Your task to perform on an android device: Go to Google maps Image 0: 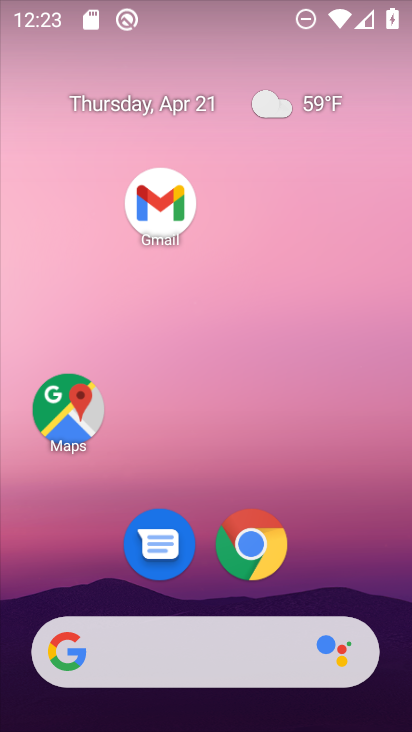
Step 0: click (265, 550)
Your task to perform on an android device: Go to Google maps Image 1: 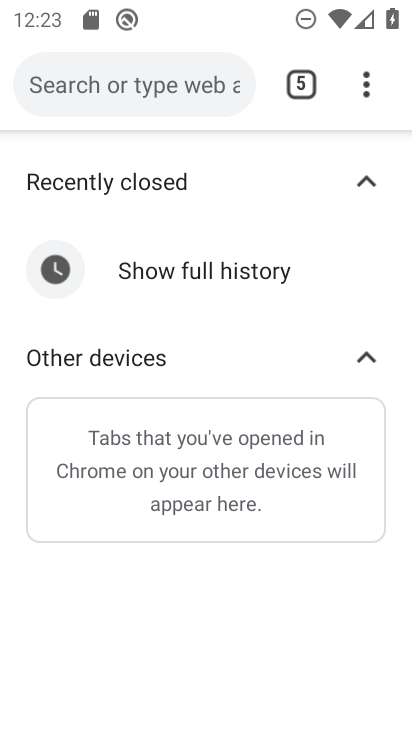
Step 1: task complete